Your task to perform on an android device: Clear the cart on costco.com. Search for "razer huntsman" on costco.com, select the first entry, add it to the cart, then select checkout. Image 0: 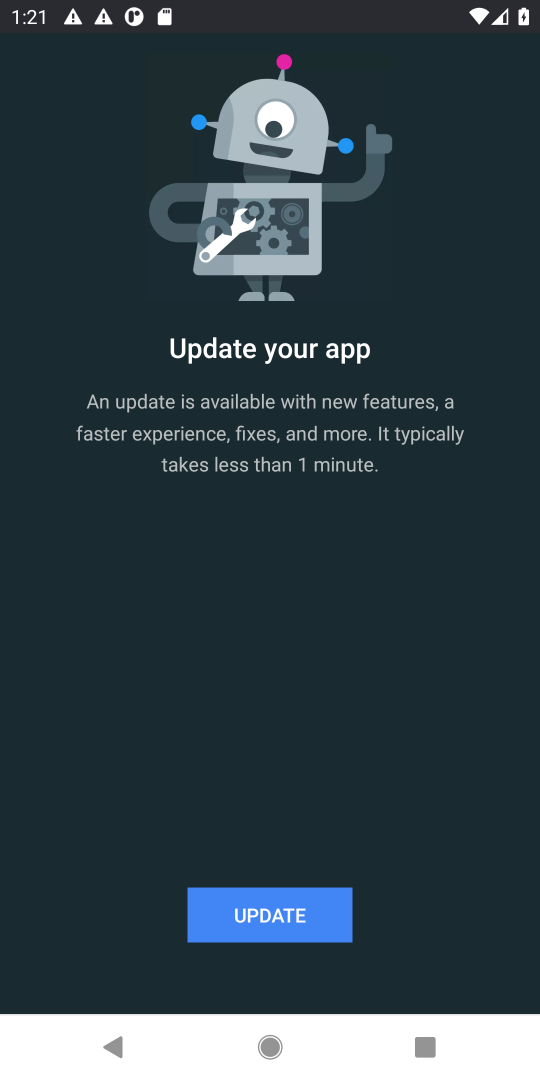
Step 0: press home button
Your task to perform on an android device: Clear the cart on costco.com. Search for "razer huntsman" on costco.com, select the first entry, add it to the cart, then select checkout. Image 1: 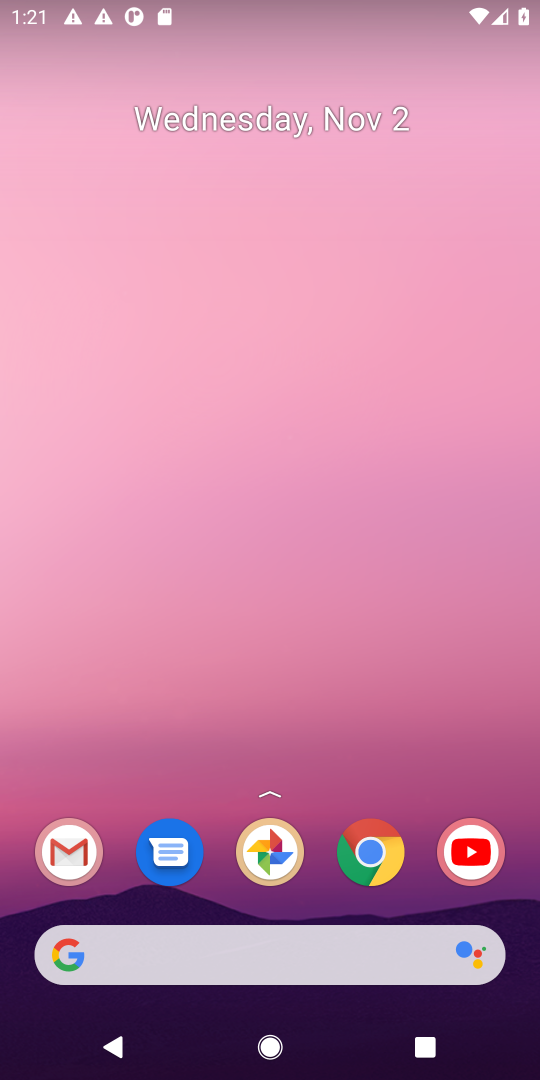
Step 1: click (67, 953)
Your task to perform on an android device: Clear the cart on costco.com. Search for "razer huntsman" on costco.com, select the first entry, add it to the cart, then select checkout. Image 2: 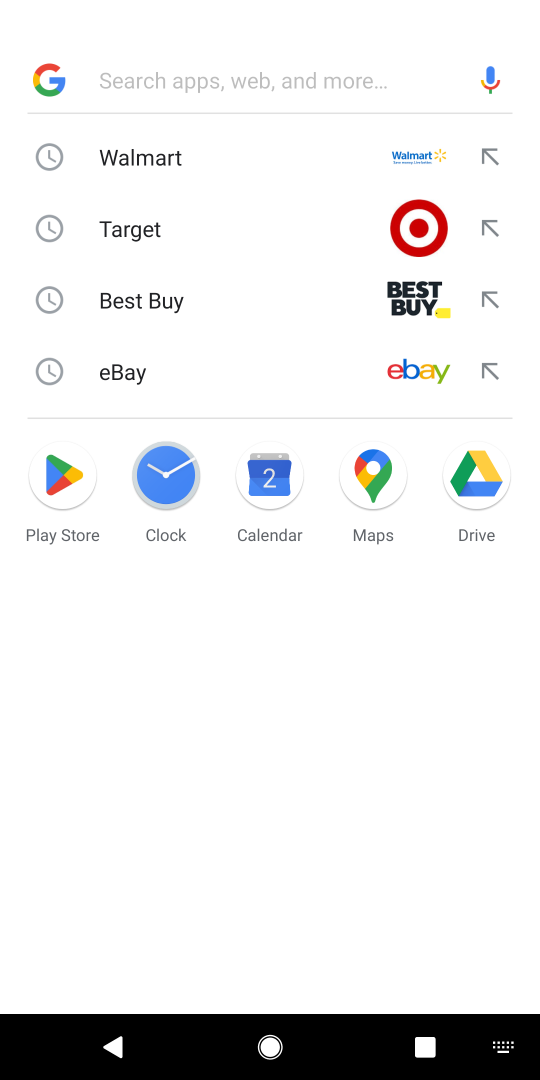
Step 2: type "costco.com"
Your task to perform on an android device: Clear the cart on costco.com. Search for "razer huntsman" on costco.com, select the first entry, add it to the cart, then select checkout. Image 3: 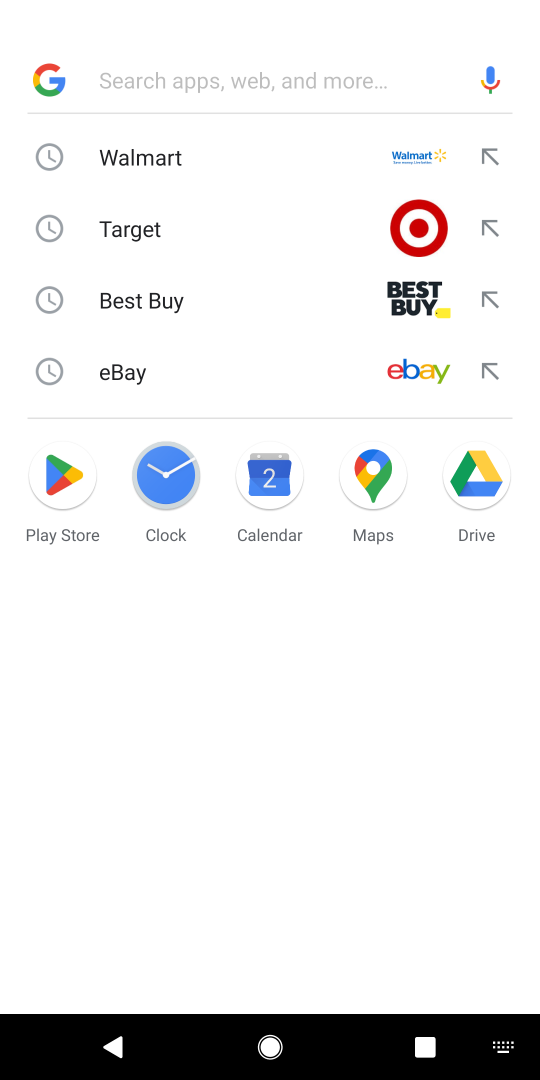
Step 3: click (121, 80)
Your task to perform on an android device: Clear the cart on costco.com. Search for "razer huntsman" on costco.com, select the first entry, add it to the cart, then select checkout. Image 4: 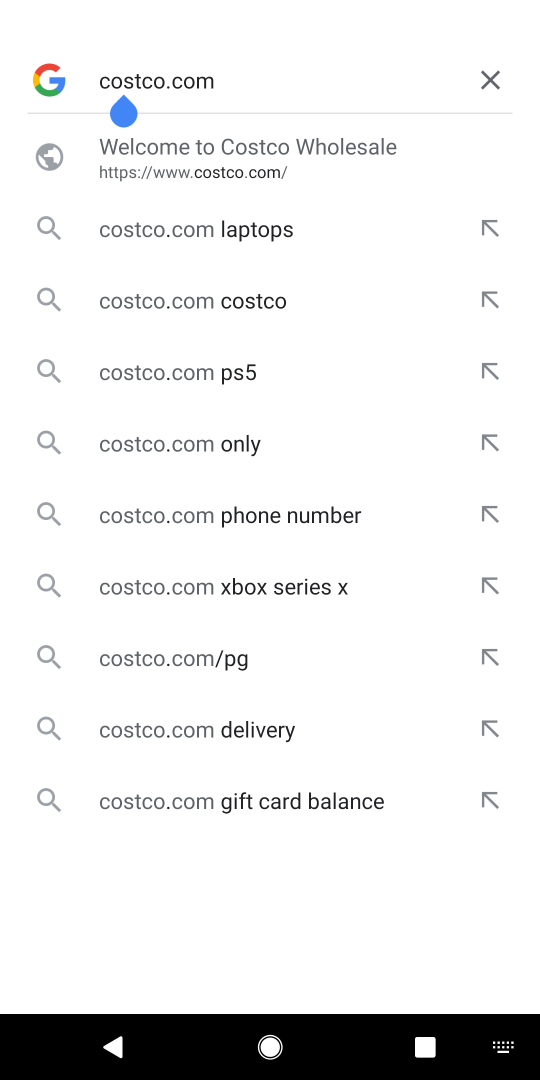
Step 4: press enter
Your task to perform on an android device: Clear the cart on costco.com. Search for "razer huntsman" on costco.com, select the first entry, add it to the cart, then select checkout. Image 5: 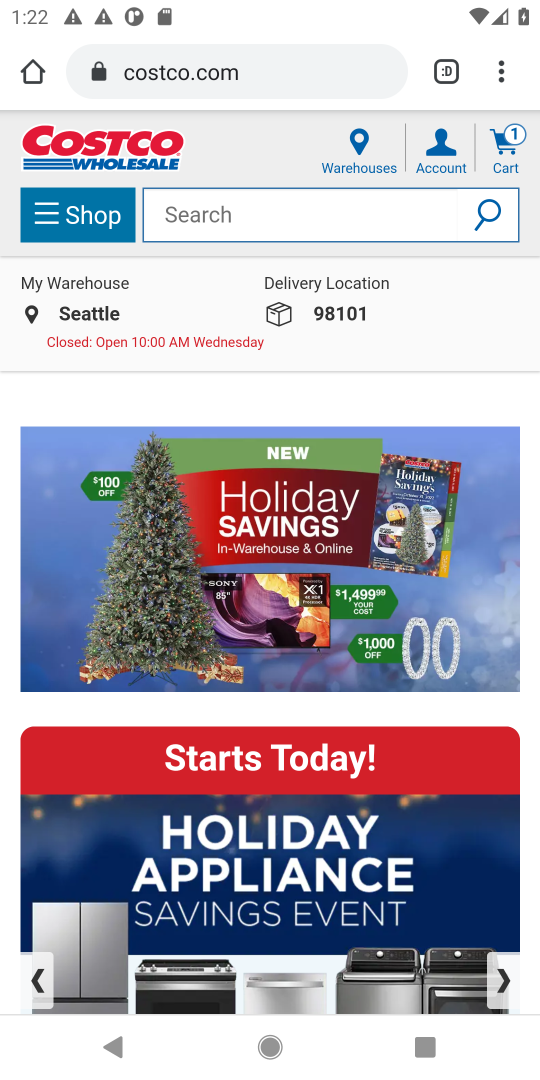
Step 5: click (184, 216)
Your task to perform on an android device: Clear the cart on costco.com. Search for "razer huntsman" on costco.com, select the first entry, add it to the cart, then select checkout. Image 6: 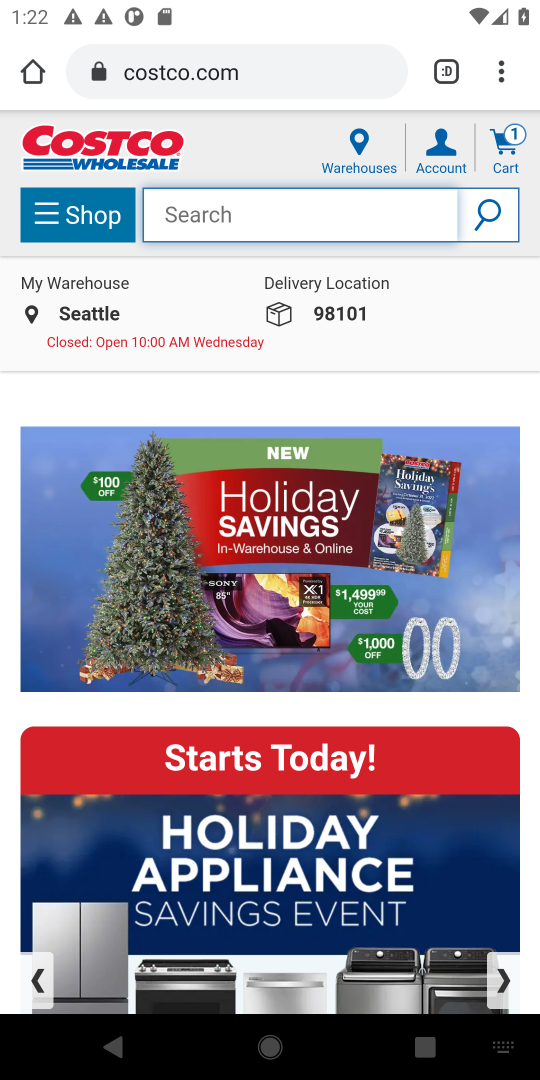
Step 6: type "razer huntsman"
Your task to perform on an android device: Clear the cart on costco.com. Search for "razer huntsman" on costco.com, select the first entry, add it to the cart, then select checkout. Image 7: 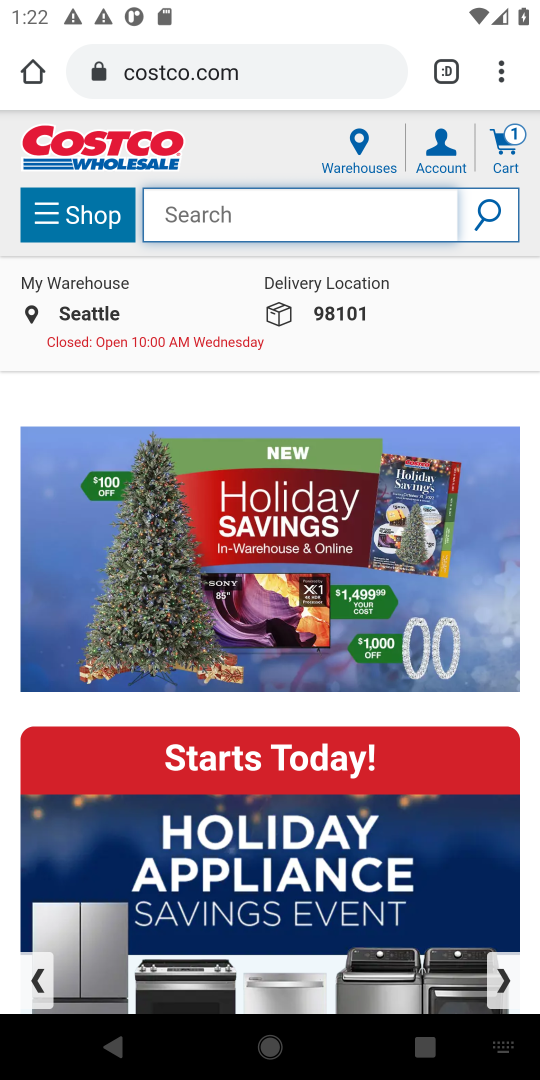
Step 7: click (193, 223)
Your task to perform on an android device: Clear the cart on costco.com. Search for "razer huntsman" on costco.com, select the first entry, add it to the cart, then select checkout. Image 8: 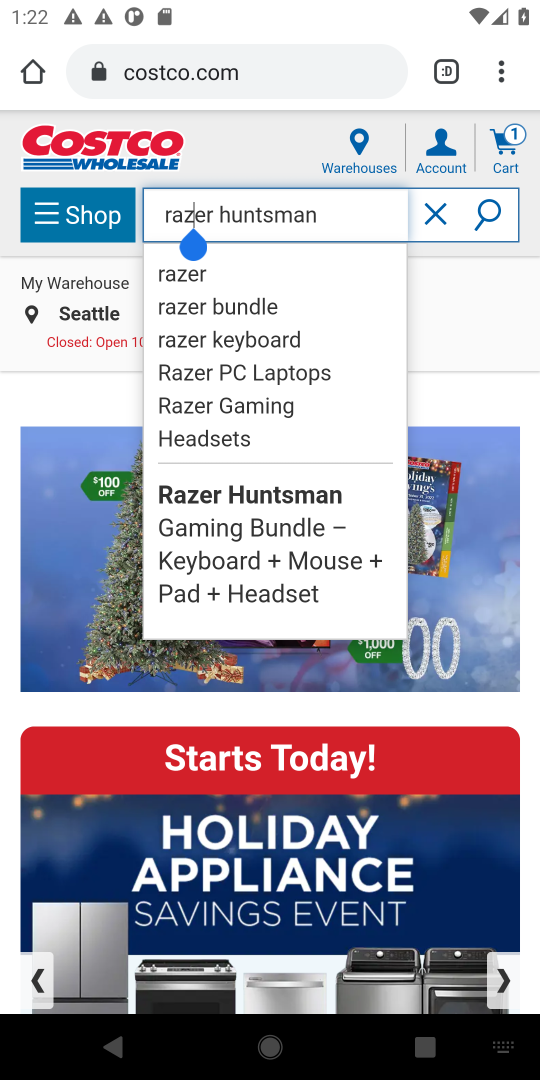
Step 8: press enter
Your task to perform on an android device: Clear the cart on costco.com. Search for "razer huntsman" on costco.com, select the first entry, add it to the cart, then select checkout. Image 9: 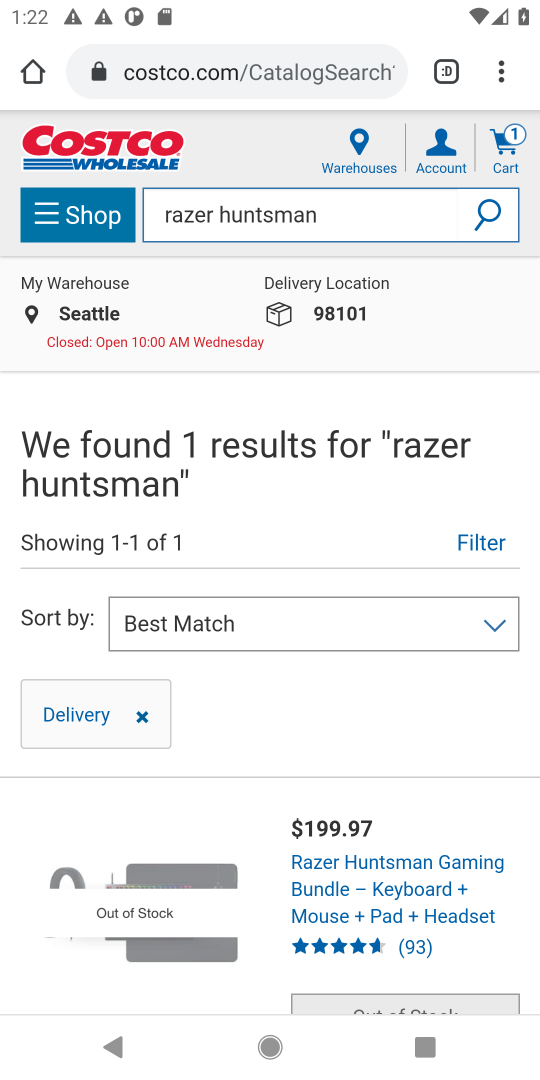
Step 9: task complete